Your task to perform on an android device: Open settings on Google Maps Image 0: 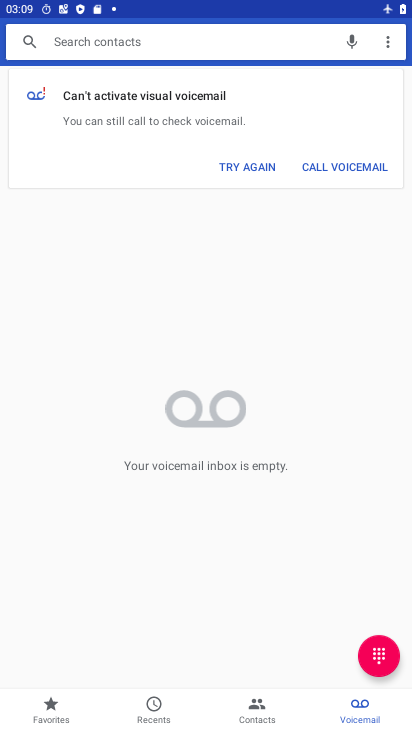
Step 0: press home button
Your task to perform on an android device: Open settings on Google Maps Image 1: 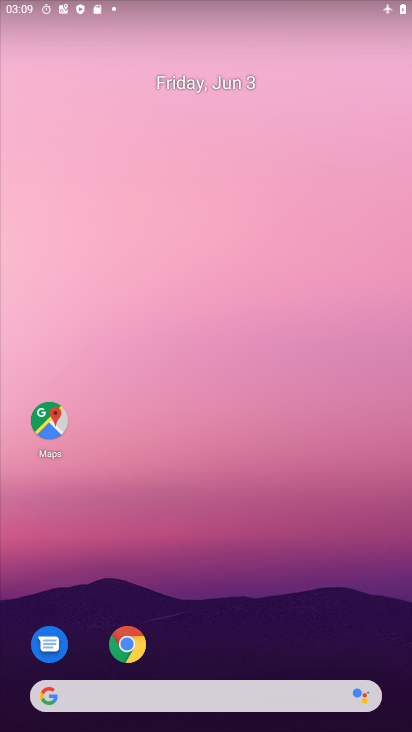
Step 1: click (49, 424)
Your task to perform on an android device: Open settings on Google Maps Image 2: 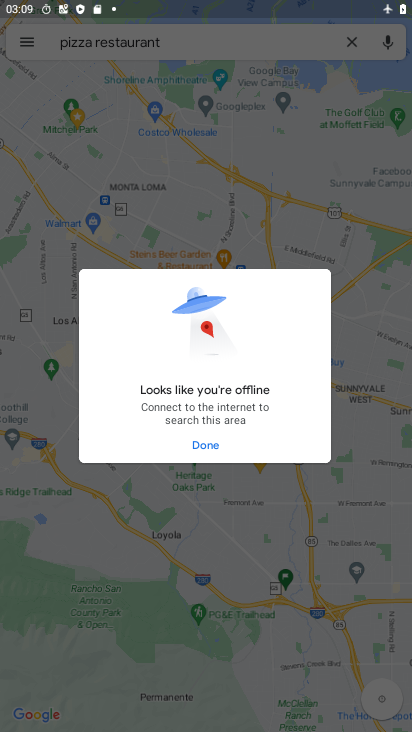
Step 2: click (214, 448)
Your task to perform on an android device: Open settings on Google Maps Image 3: 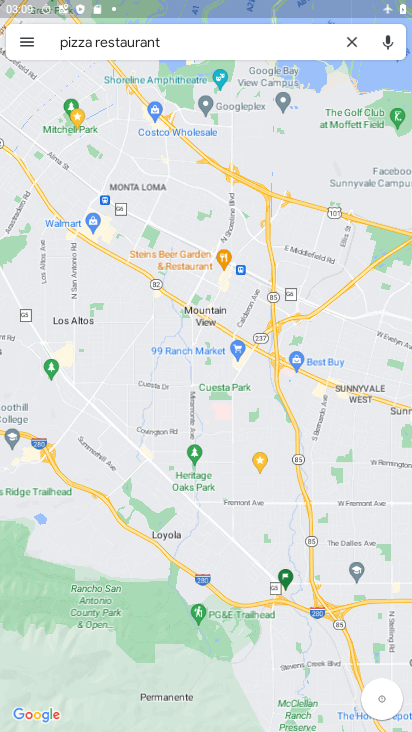
Step 3: click (26, 45)
Your task to perform on an android device: Open settings on Google Maps Image 4: 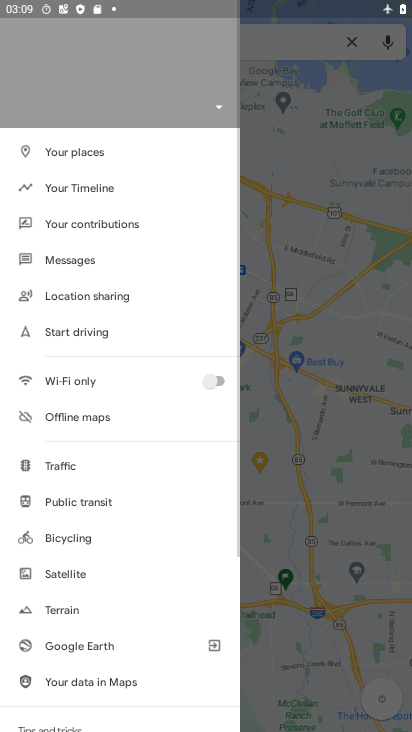
Step 4: drag from (133, 524) to (171, 342)
Your task to perform on an android device: Open settings on Google Maps Image 5: 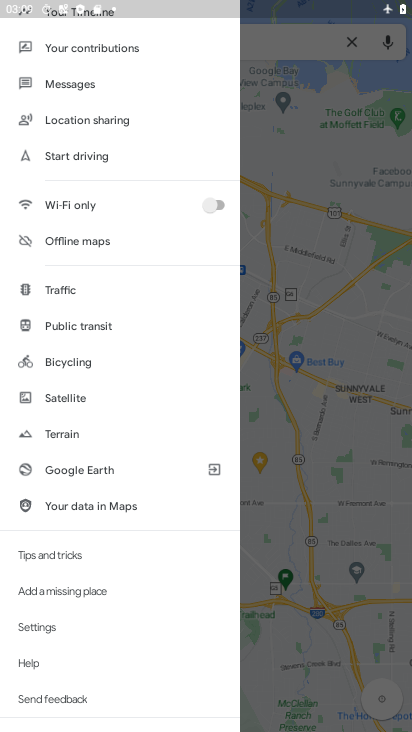
Step 5: click (37, 630)
Your task to perform on an android device: Open settings on Google Maps Image 6: 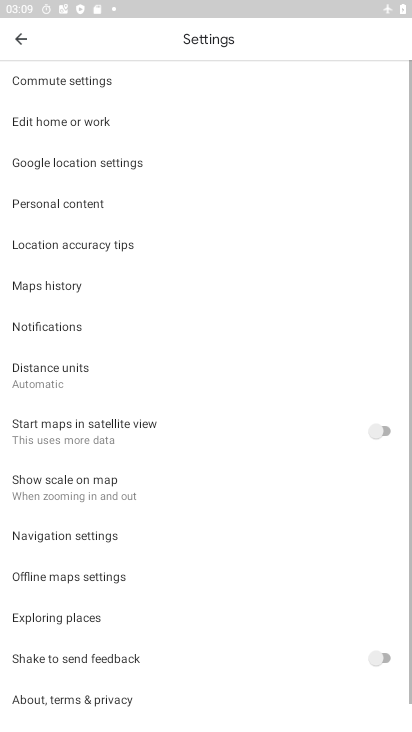
Step 6: task complete